Your task to perform on an android device: Find coffee shops on Maps Image 0: 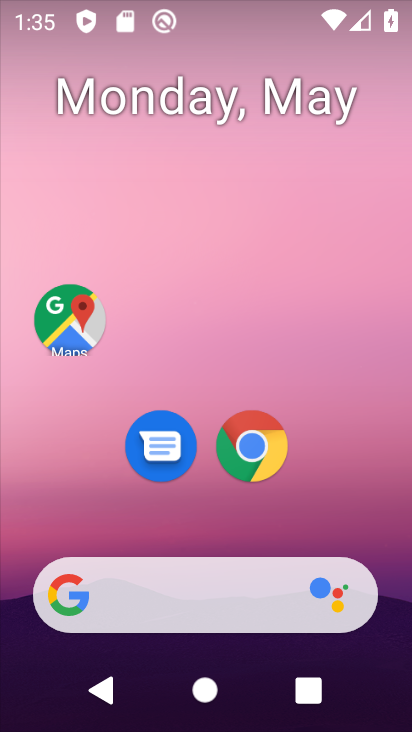
Step 0: click (100, 342)
Your task to perform on an android device: Find coffee shops on Maps Image 1: 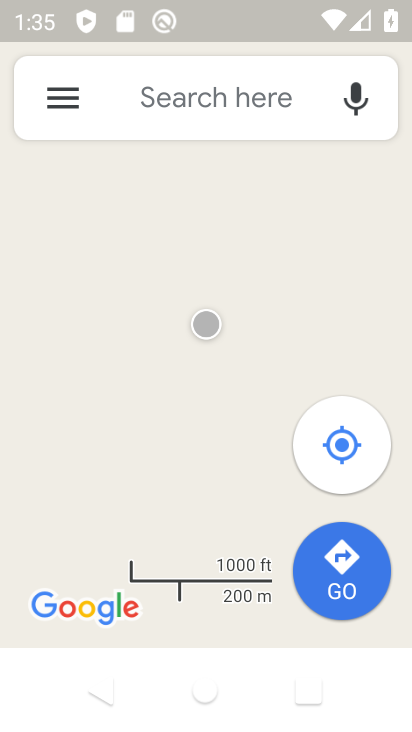
Step 1: click (192, 114)
Your task to perform on an android device: Find coffee shops on Maps Image 2: 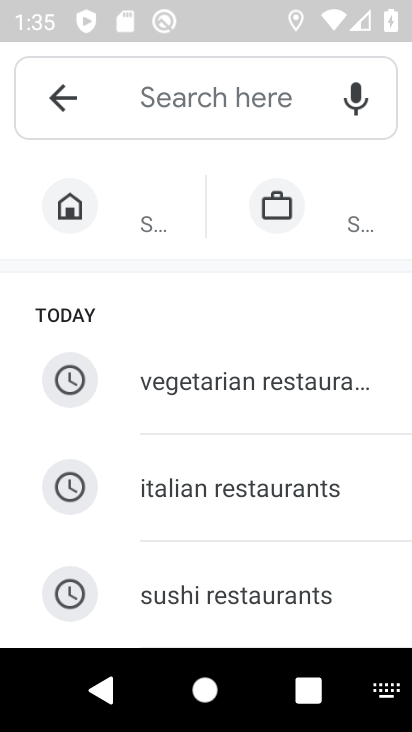
Step 2: type "coffee shops"
Your task to perform on an android device: Find coffee shops on Maps Image 3: 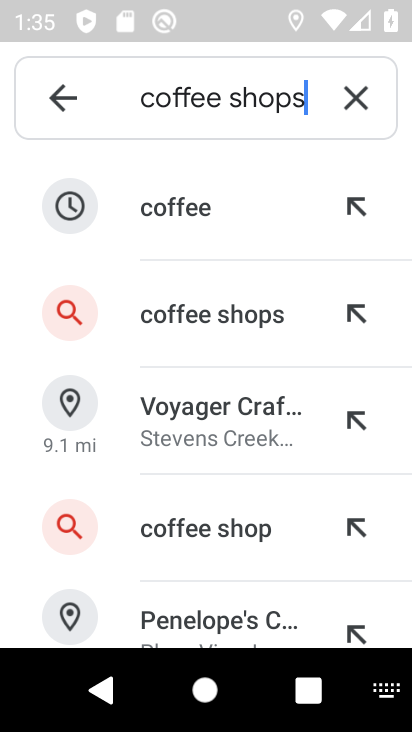
Step 3: click (249, 321)
Your task to perform on an android device: Find coffee shops on Maps Image 4: 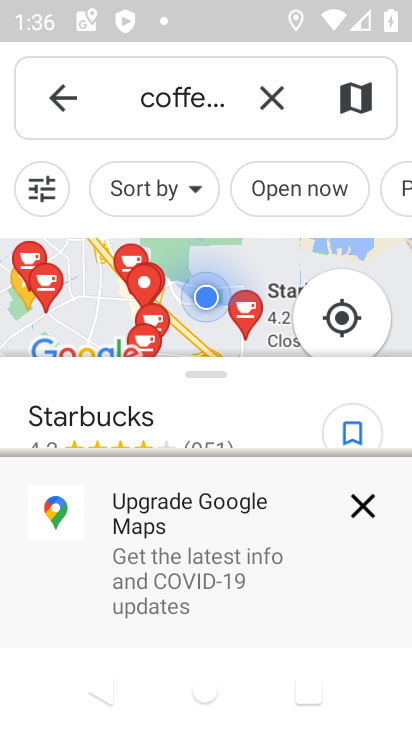
Step 4: task complete